Your task to perform on an android device: Is it going to rain this weekend? Image 0: 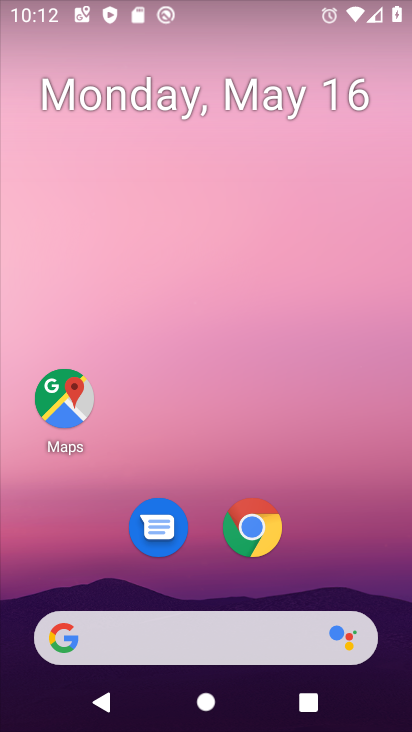
Step 0: click (90, 640)
Your task to perform on an android device: Is it going to rain this weekend? Image 1: 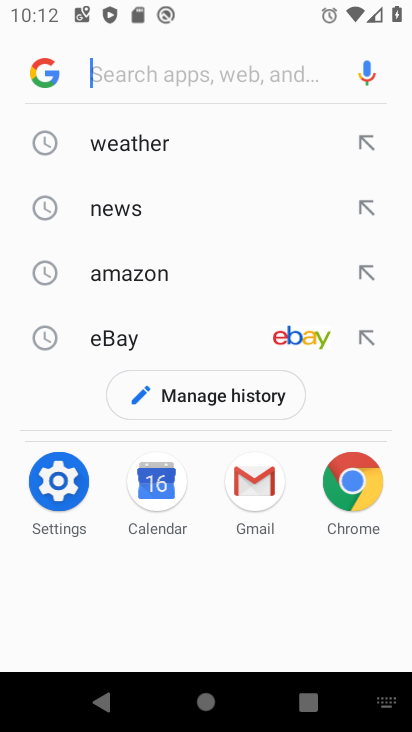
Step 1: click (105, 154)
Your task to perform on an android device: Is it going to rain this weekend? Image 2: 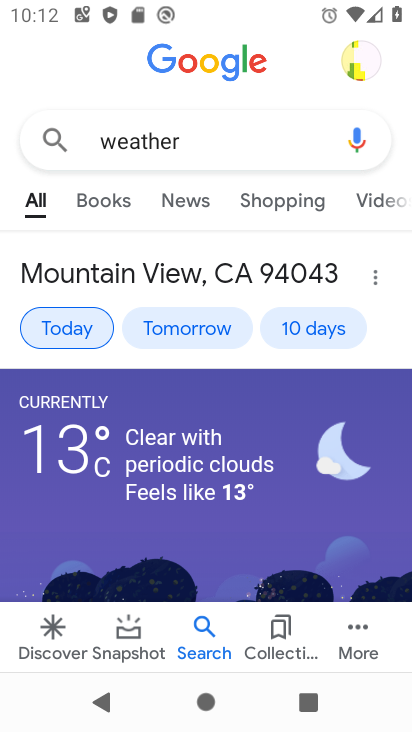
Step 2: click (309, 325)
Your task to perform on an android device: Is it going to rain this weekend? Image 3: 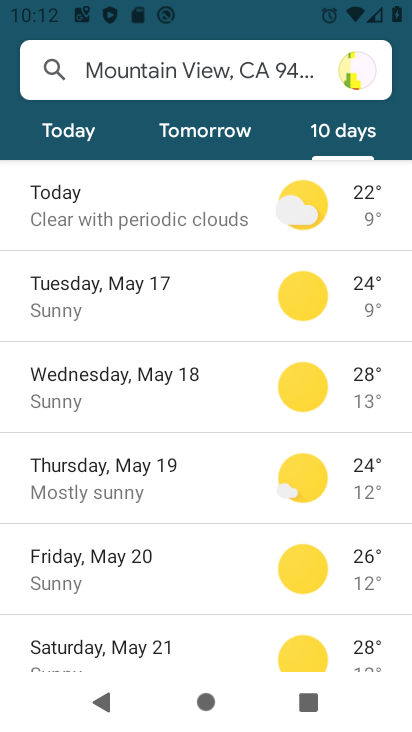
Step 3: task complete